Your task to perform on an android device: What is the news today? Image 0: 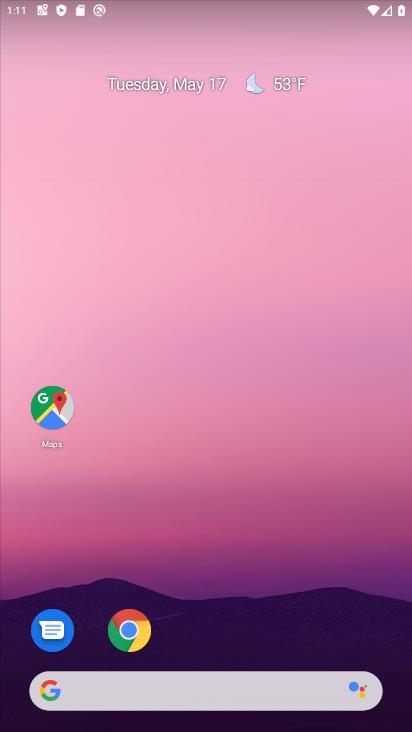
Step 0: drag from (217, 607) to (253, 127)
Your task to perform on an android device: What is the news today? Image 1: 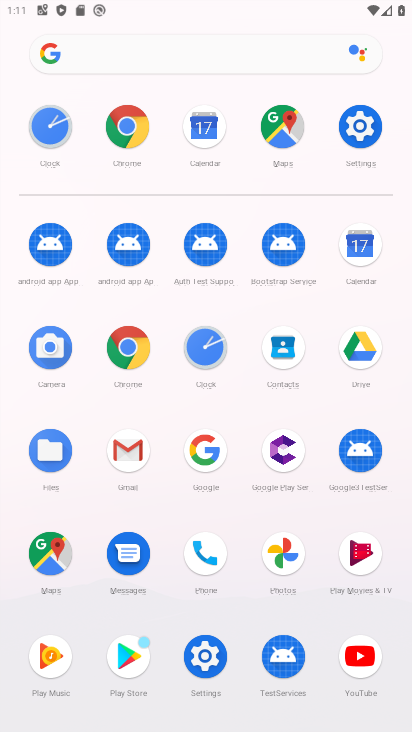
Step 1: click (208, 484)
Your task to perform on an android device: What is the news today? Image 2: 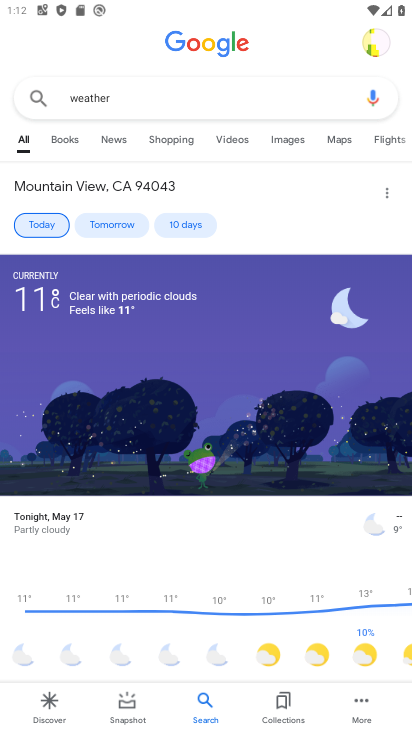
Step 2: click (307, 106)
Your task to perform on an android device: What is the news today? Image 3: 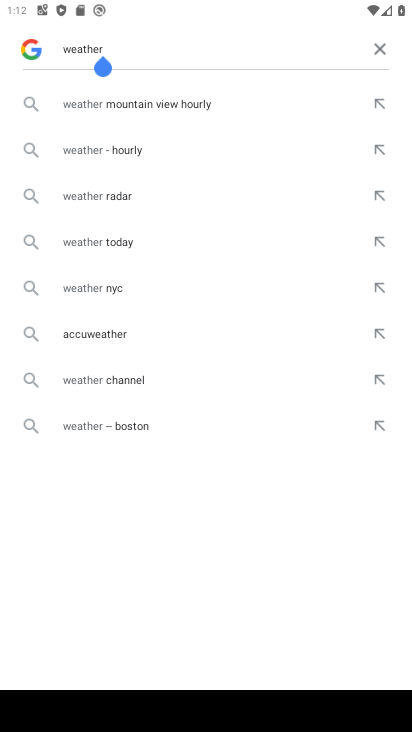
Step 3: click (380, 49)
Your task to perform on an android device: What is the news today? Image 4: 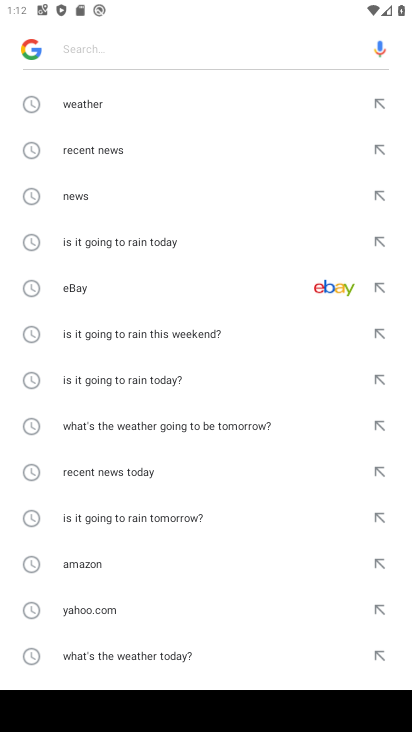
Step 4: click (127, 194)
Your task to perform on an android device: What is the news today? Image 5: 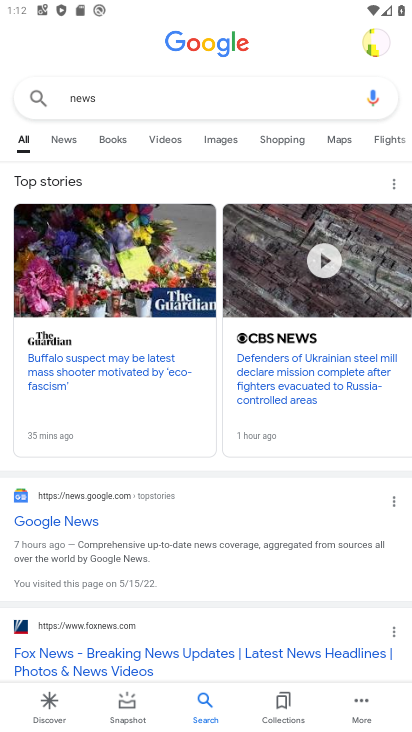
Step 5: task complete